Your task to perform on an android device: turn on the 24-hour format for clock Image 0: 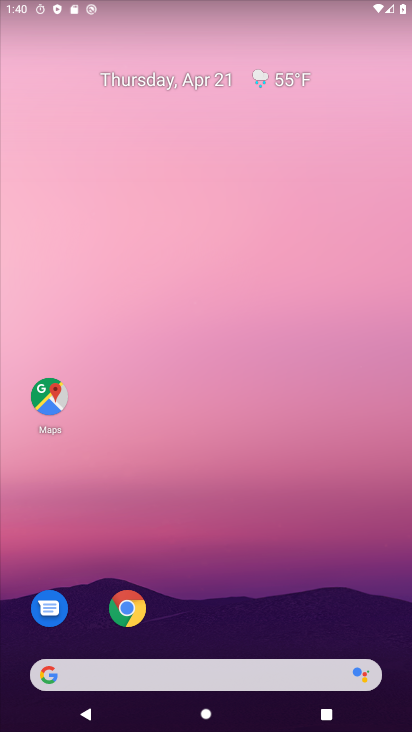
Step 0: drag from (199, 562) to (160, 128)
Your task to perform on an android device: turn on the 24-hour format for clock Image 1: 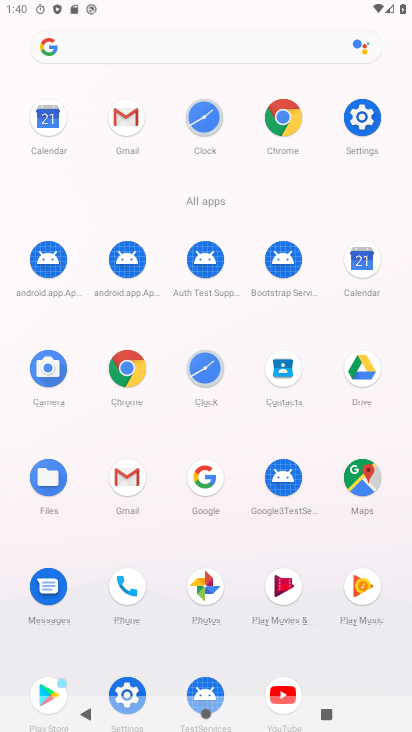
Step 1: click (204, 366)
Your task to perform on an android device: turn on the 24-hour format for clock Image 2: 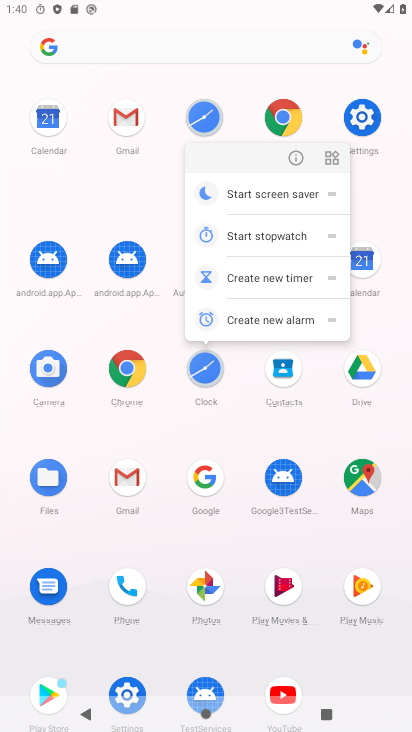
Step 2: click (204, 366)
Your task to perform on an android device: turn on the 24-hour format for clock Image 3: 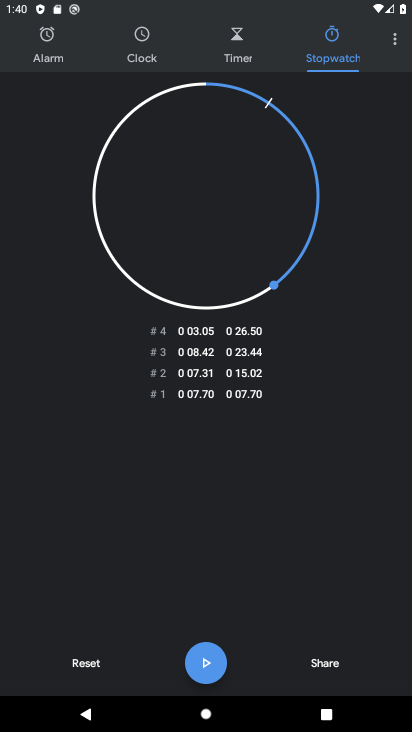
Step 3: click (393, 45)
Your task to perform on an android device: turn on the 24-hour format for clock Image 4: 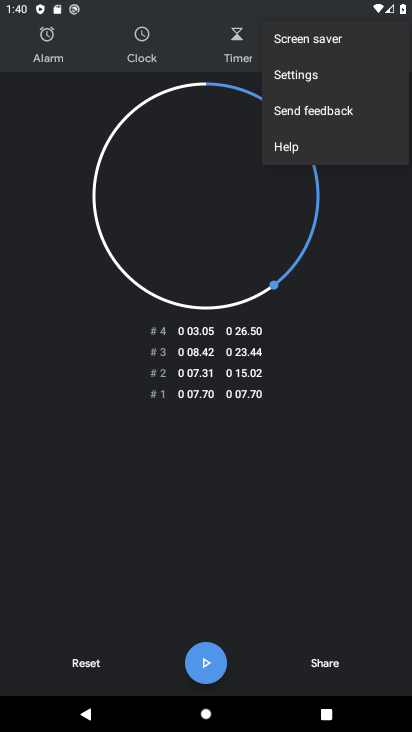
Step 4: click (301, 82)
Your task to perform on an android device: turn on the 24-hour format for clock Image 5: 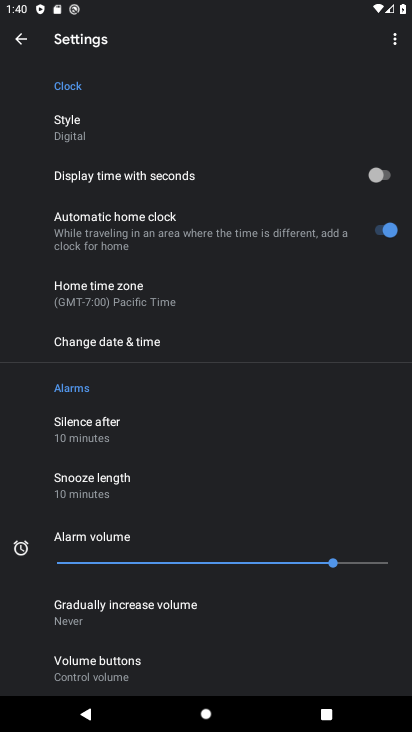
Step 5: click (97, 344)
Your task to perform on an android device: turn on the 24-hour format for clock Image 6: 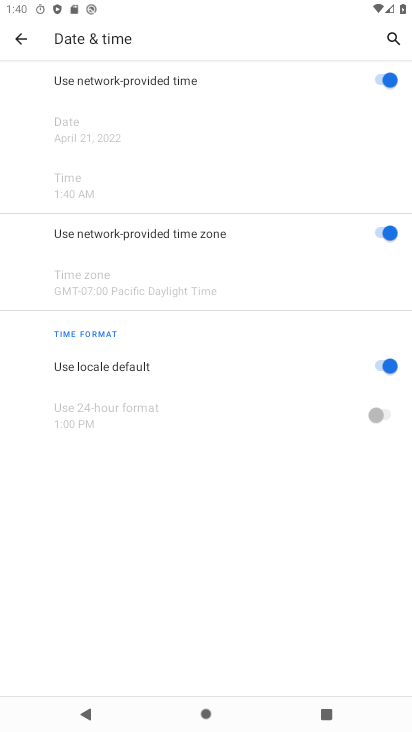
Step 6: click (386, 366)
Your task to perform on an android device: turn on the 24-hour format for clock Image 7: 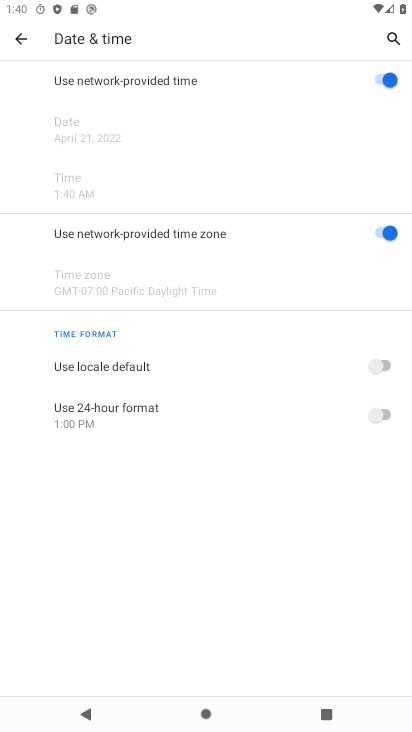
Step 7: click (380, 408)
Your task to perform on an android device: turn on the 24-hour format for clock Image 8: 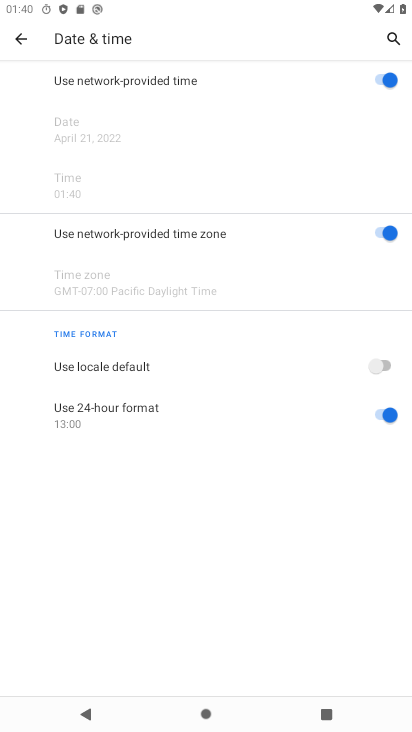
Step 8: task complete